Your task to perform on an android device: find photos in the google photos app Image 0: 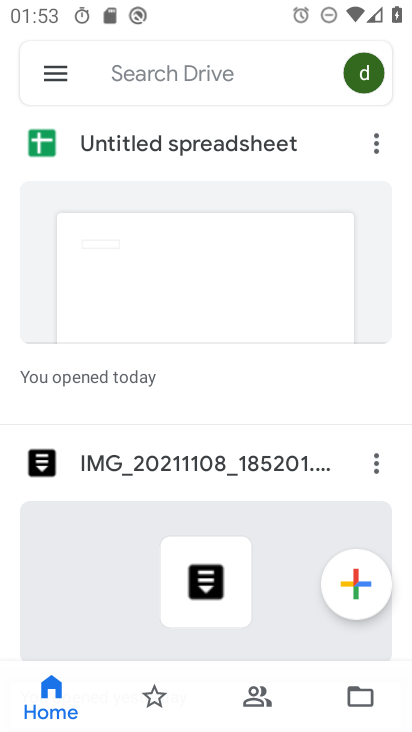
Step 0: press home button
Your task to perform on an android device: find photos in the google photos app Image 1: 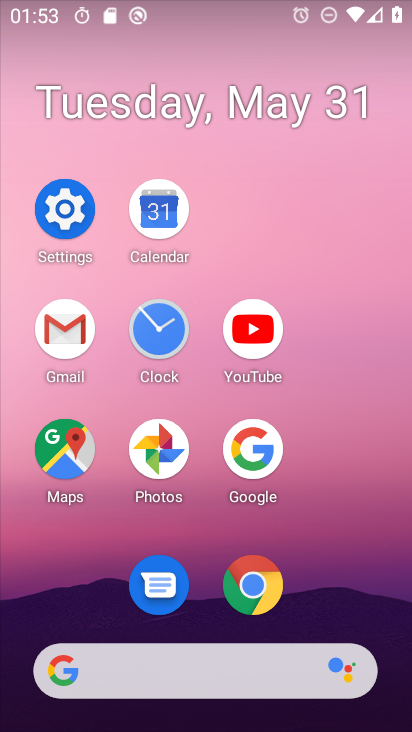
Step 1: click (171, 446)
Your task to perform on an android device: find photos in the google photos app Image 2: 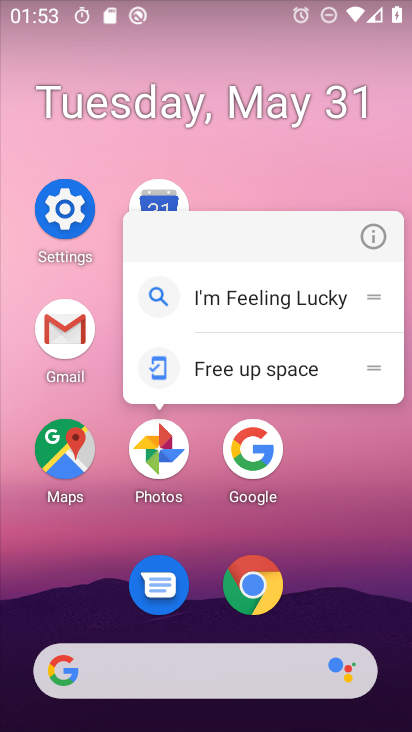
Step 2: click (191, 454)
Your task to perform on an android device: find photos in the google photos app Image 3: 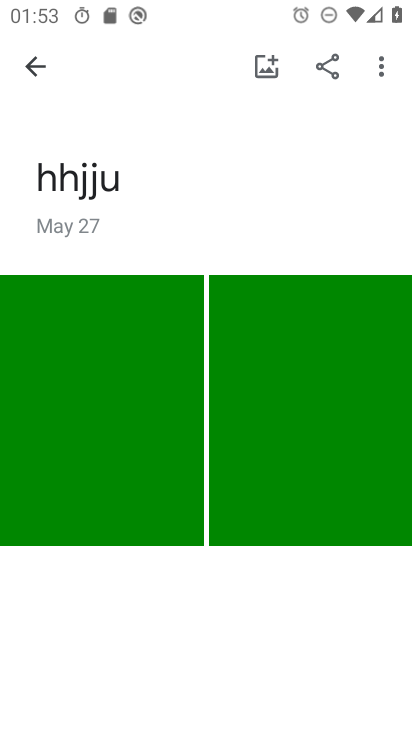
Step 3: click (33, 64)
Your task to perform on an android device: find photos in the google photos app Image 4: 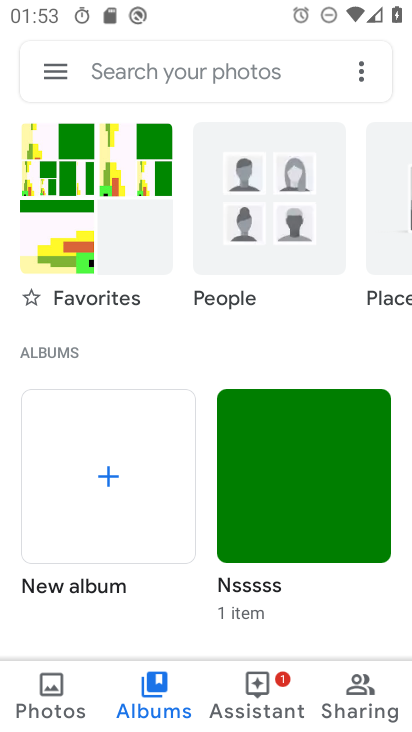
Step 4: task complete